Your task to perform on an android device: Go to network settings Image 0: 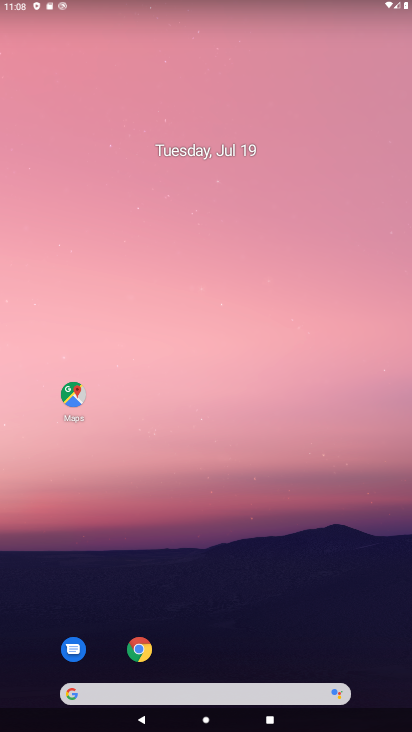
Step 0: drag from (230, 685) to (296, 26)
Your task to perform on an android device: Go to network settings Image 1: 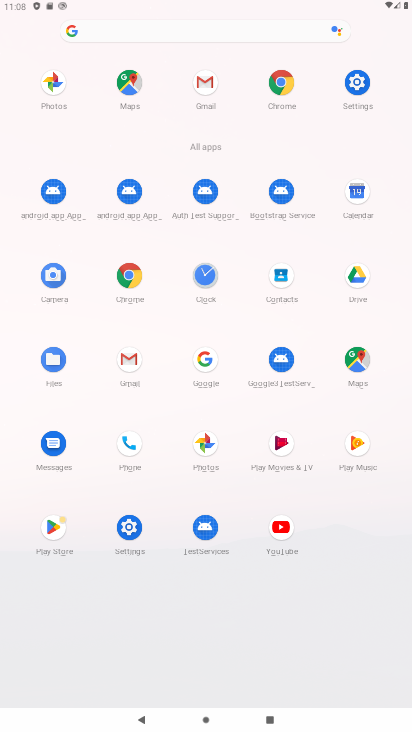
Step 1: click (352, 83)
Your task to perform on an android device: Go to network settings Image 2: 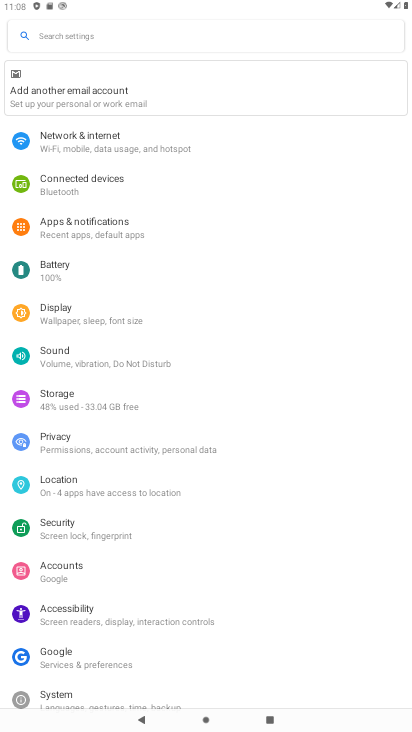
Step 2: click (145, 142)
Your task to perform on an android device: Go to network settings Image 3: 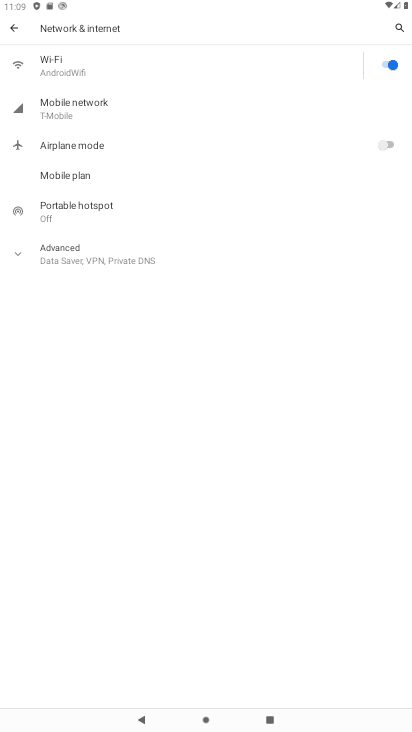
Step 3: task complete